Your task to perform on an android device: Go to Android settings Image 0: 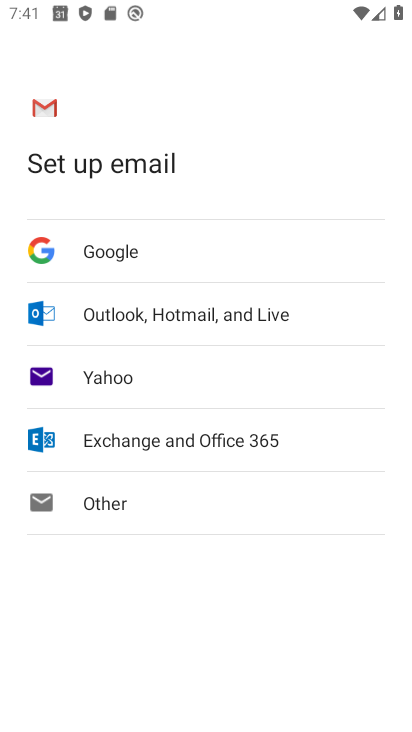
Step 0: press home button
Your task to perform on an android device: Go to Android settings Image 1: 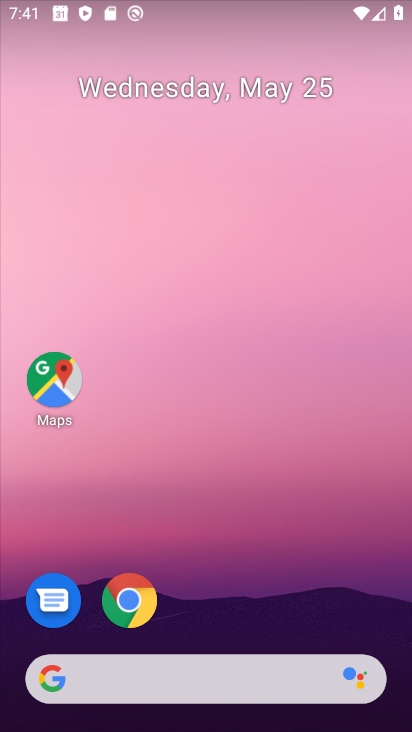
Step 1: drag from (238, 645) to (223, 118)
Your task to perform on an android device: Go to Android settings Image 2: 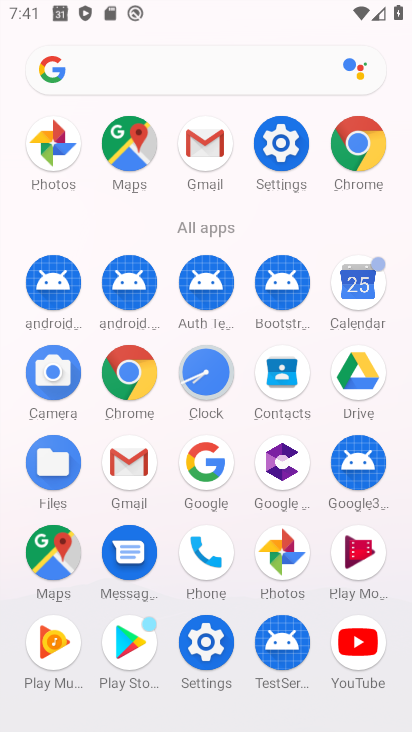
Step 2: click (272, 141)
Your task to perform on an android device: Go to Android settings Image 3: 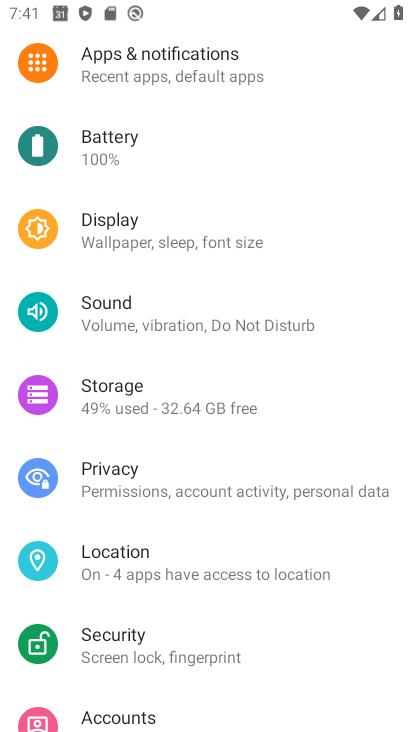
Step 3: task complete